Your task to perform on an android device: Go to location settings Image 0: 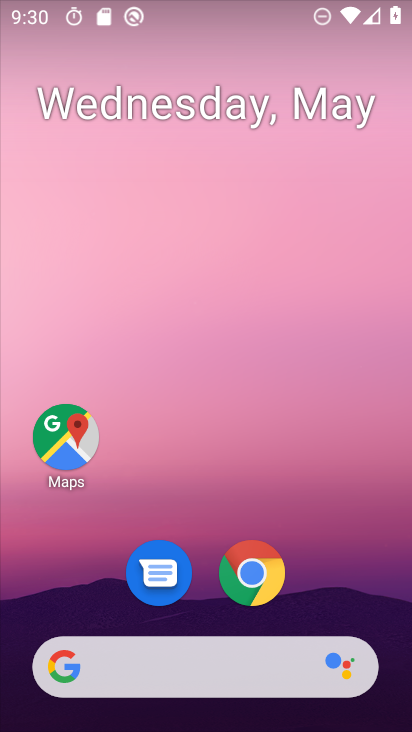
Step 0: drag from (385, 670) to (340, 337)
Your task to perform on an android device: Go to location settings Image 1: 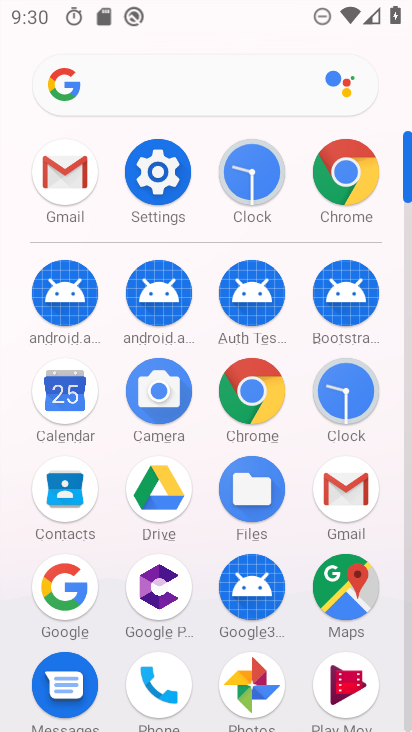
Step 1: click (154, 176)
Your task to perform on an android device: Go to location settings Image 2: 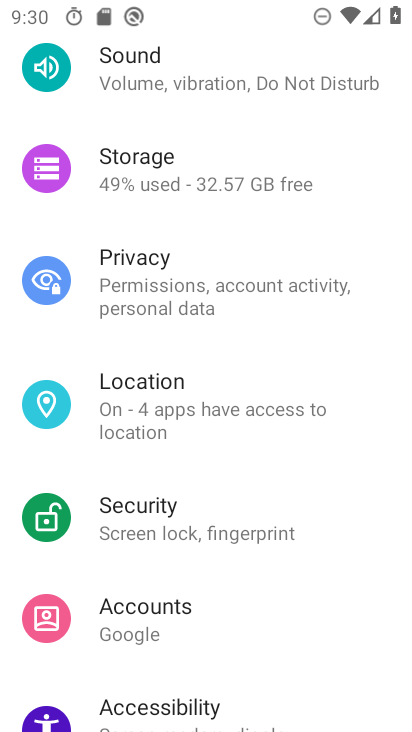
Step 2: click (172, 400)
Your task to perform on an android device: Go to location settings Image 3: 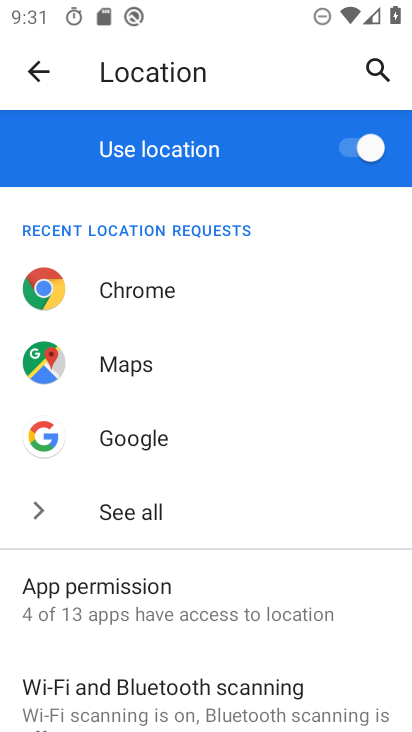
Step 3: drag from (254, 649) to (269, 324)
Your task to perform on an android device: Go to location settings Image 4: 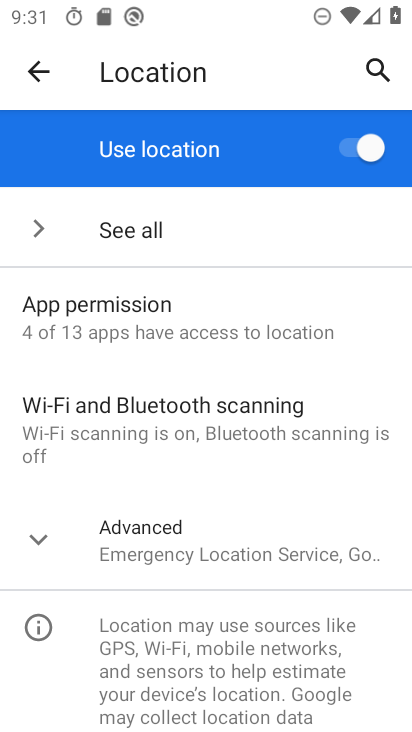
Step 4: click (21, 537)
Your task to perform on an android device: Go to location settings Image 5: 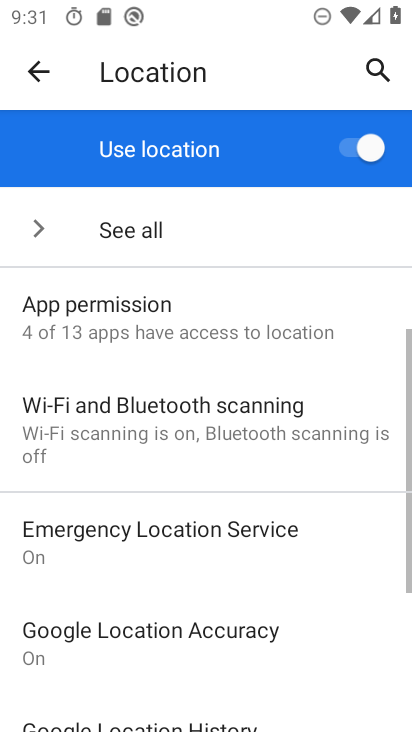
Step 5: task complete